Your task to perform on an android device: Open Chrome and go to settings Image 0: 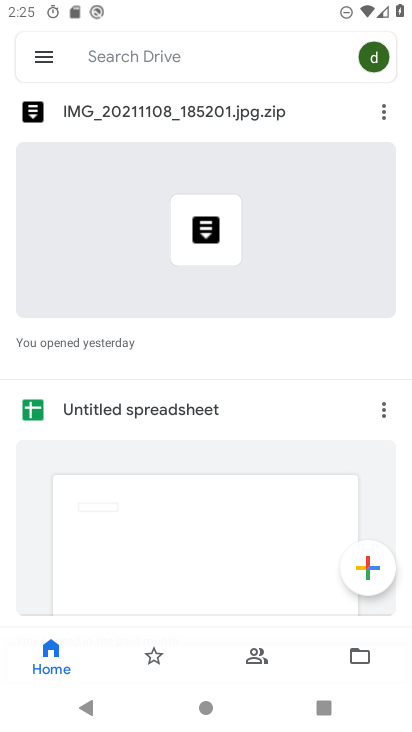
Step 0: press home button
Your task to perform on an android device: Open Chrome and go to settings Image 1: 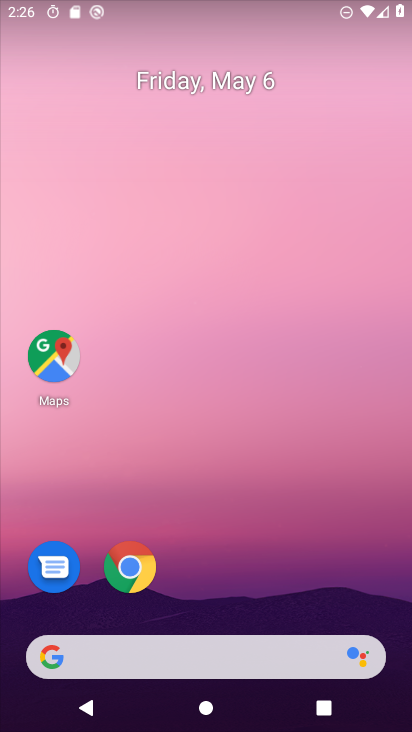
Step 1: drag from (335, 683) to (311, 306)
Your task to perform on an android device: Open Chrome and go to settings Image 2: 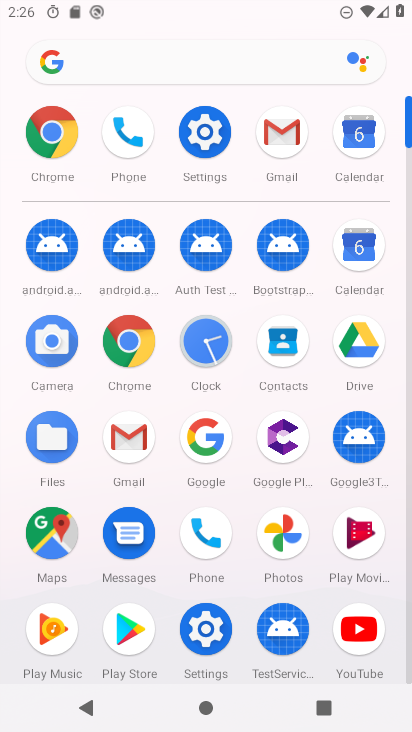
Step 2: click (134, 353)
Your task to perform on an android device: Open Chrome and go to settings Image 3: 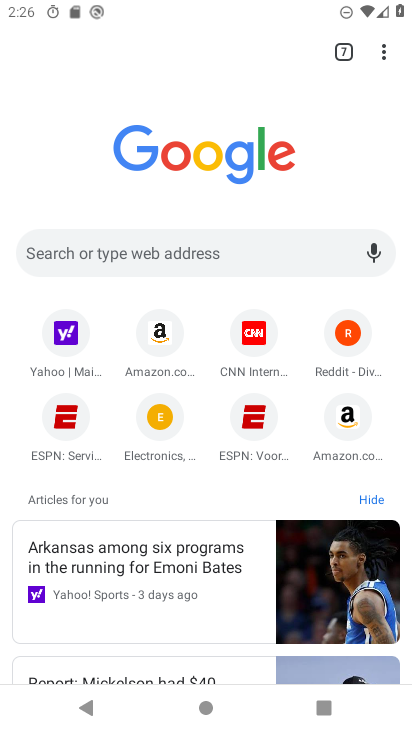
Step 3: click (376, 68)
Your task to perform on an android device: Open Chrome and go to settings Image 4: 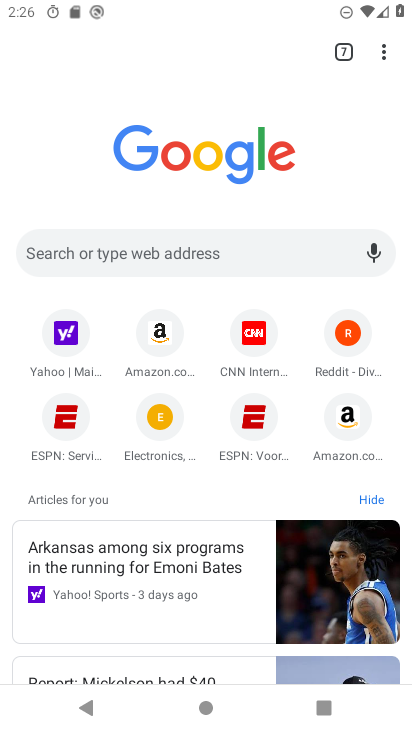
Step 4: click (393, 67)
Your task to perform on an android device: Open Chrome and go to settings Image 5: 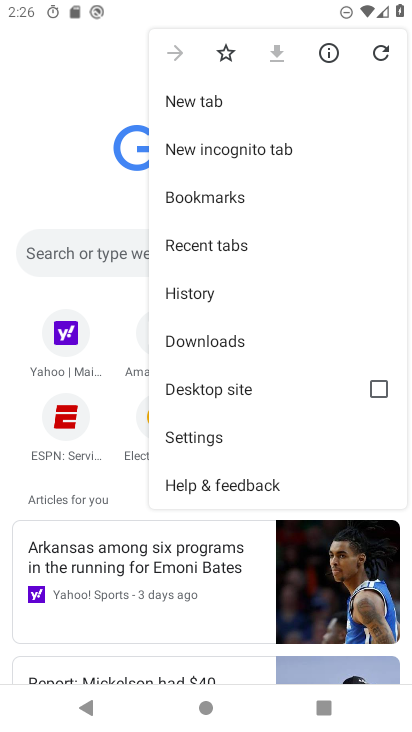
Step 5: click (204, 432)
Your task to perform on an android device: Open Chrome and go to settings Image 6: 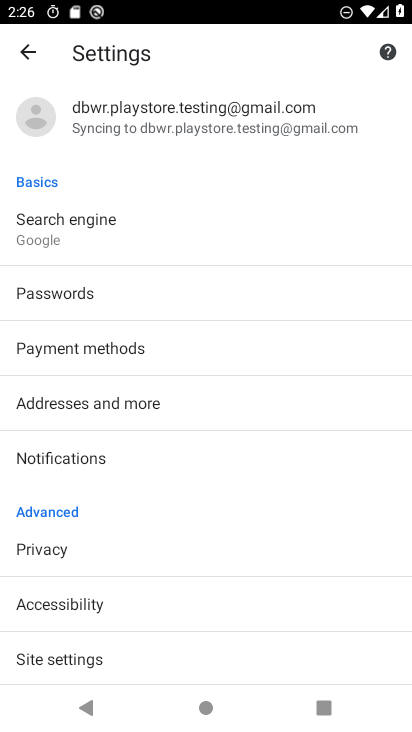
Step 6: task complete